Your task to perform on an android device: turn notification dots off Image 0: 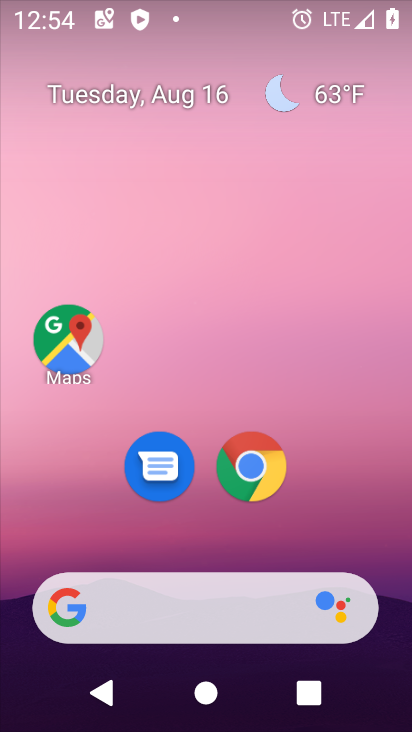
Step 0: drag from (195, 541) to (195, 77)
Your task to perform on an android device: turn notification dots off Image 1: 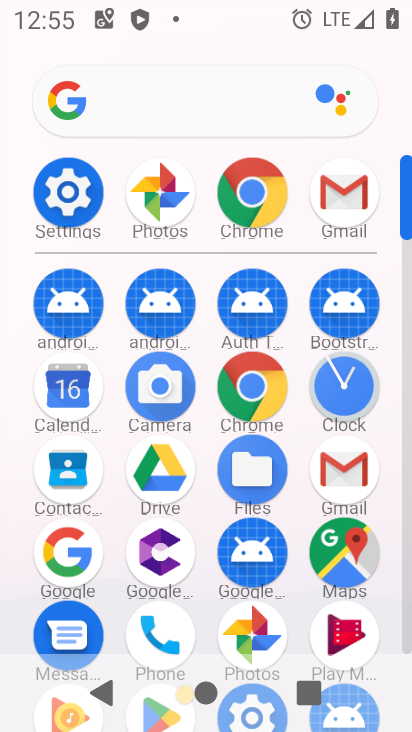
Step 1: click (50, 174)
Your task to perform on an android device: turn notification dots off Image 2: 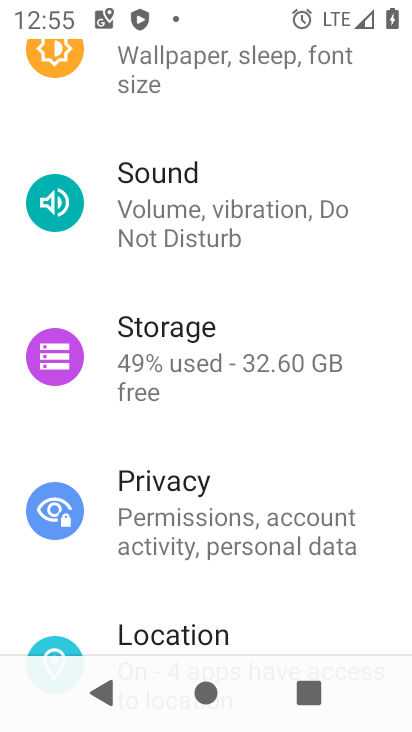
Step 2: drag from (200, 71) to (195, 535)
Your task to perform on an android device: turn notification dots off Image 3: 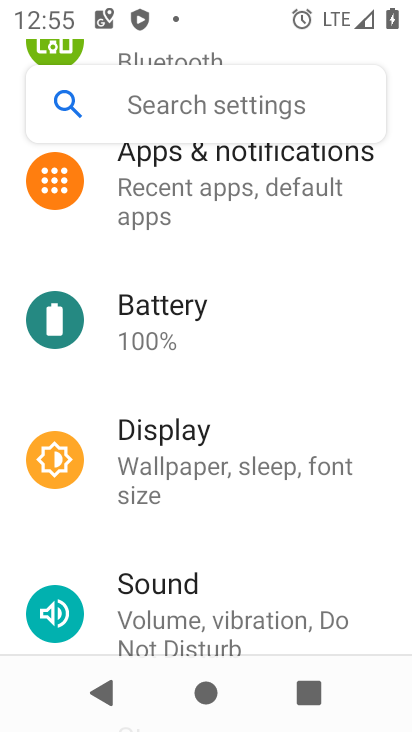
Step 3: click (244, 101)
Your task to perform on an android device: turn notification dots off Image 4: 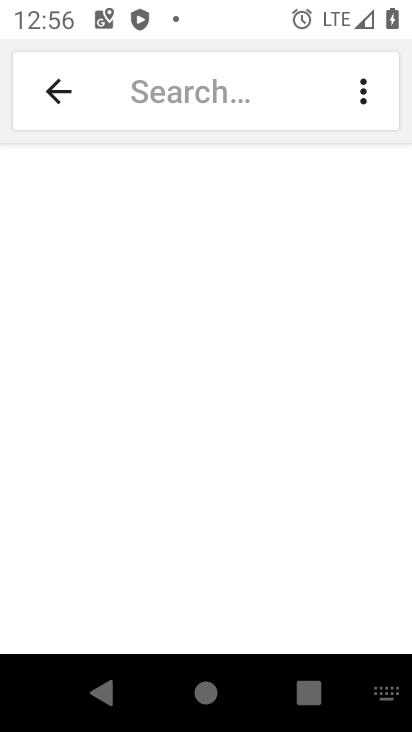
Step 4: click (199, 87)
Your task to perform on an android device: turn notification dots off Image 5: 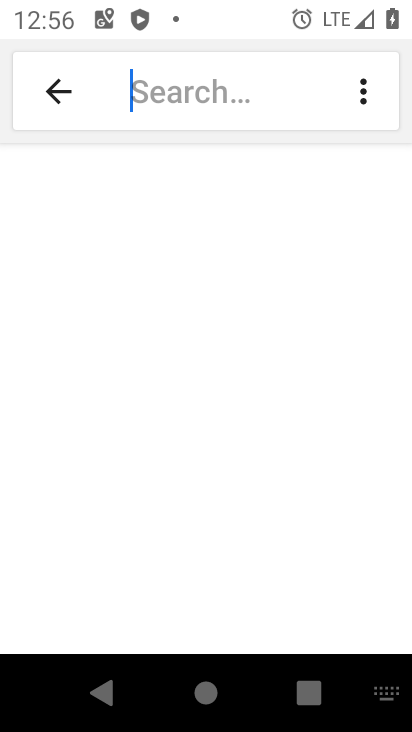
Step 5: type " notification dot "
Your task to perform on an android device: turn notification dots off Image 6: 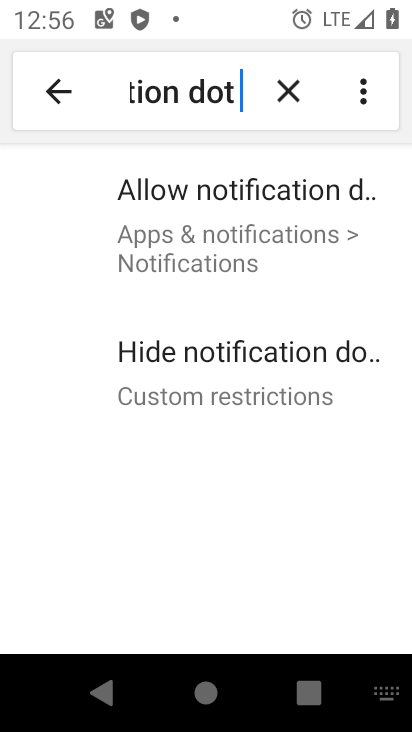
Step 6: click (157, 226)
Your task to perform on an android device: turn notification dots off Image 7: 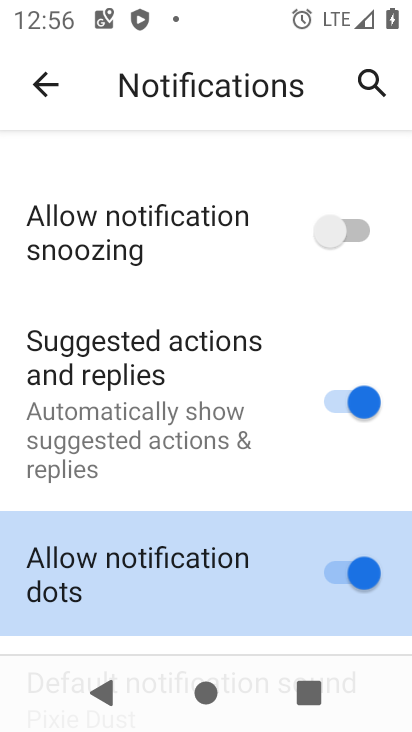
Step 7: click (350, 581)
Your task to perform on an android device: turn notification dots off Image 8: 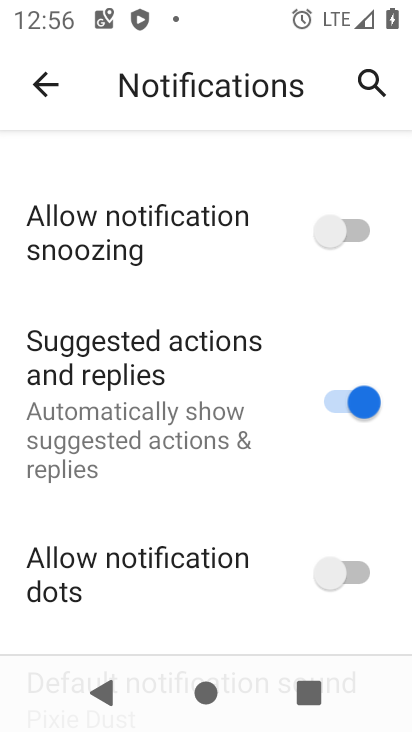
Step 8: task complete